Your task to perform on an android device: Toggle the flashlight Image 0: 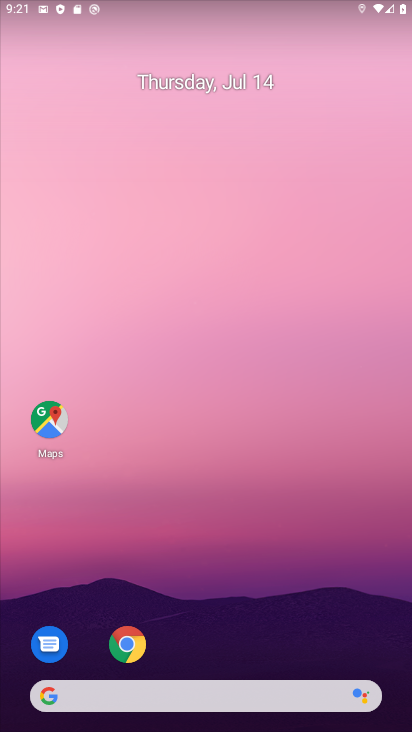
Step 0: press home button
Your task to perform on an android device: Toggle the flashlight Image 1: 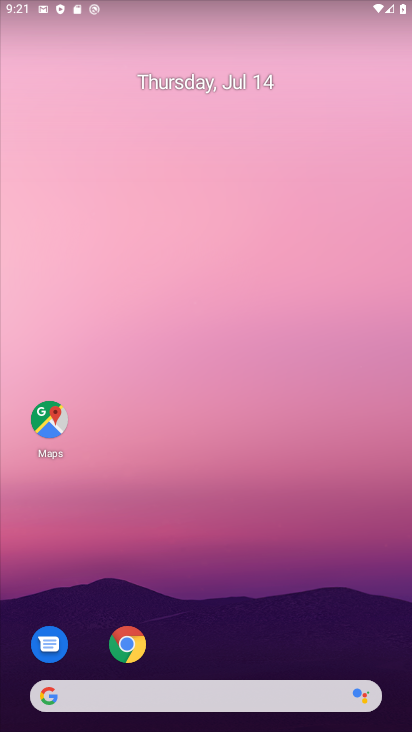
Step 1: drag from (268, 601) to (313, 22)
Your task to perform on an android device: Toggle the flashlight Image 2: 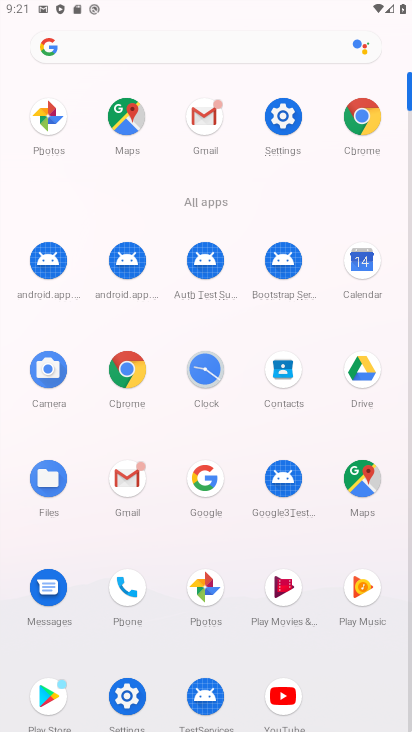
Step 2: click (280, 107)
Your task to perform on an android device: Toggle the flashlight Image 3: 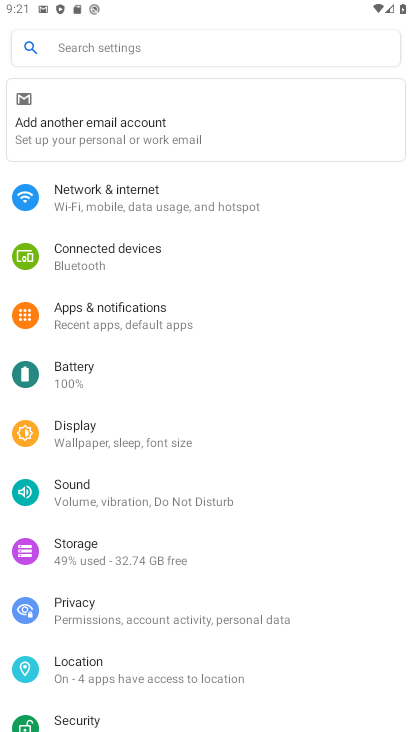
Step 3: task complete